Your task to perform on an android device: Check the weather Image 0: 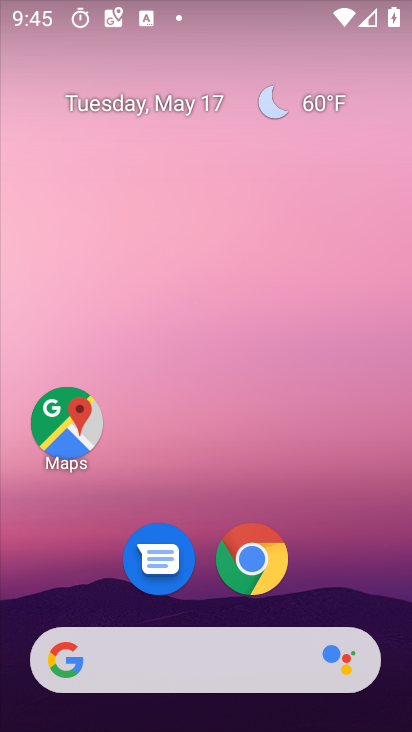
Step 0: drag from (236, 551) to (299, 160)
Your task to perform on an android device: Check the weather Image 1: 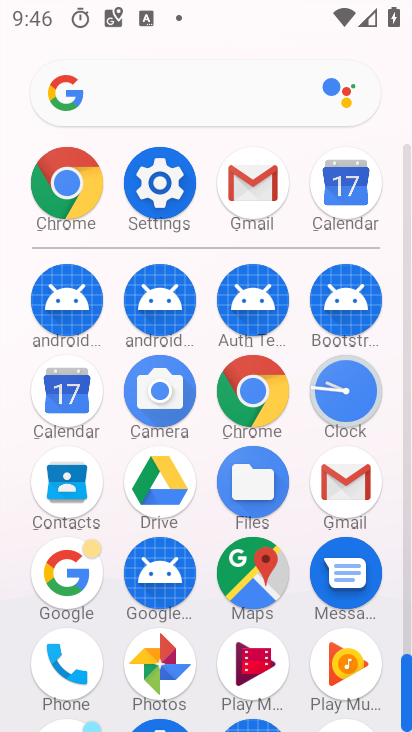
Step 1: click (68, 599)
Your task to perform on an android device: Check the weather Image 2: 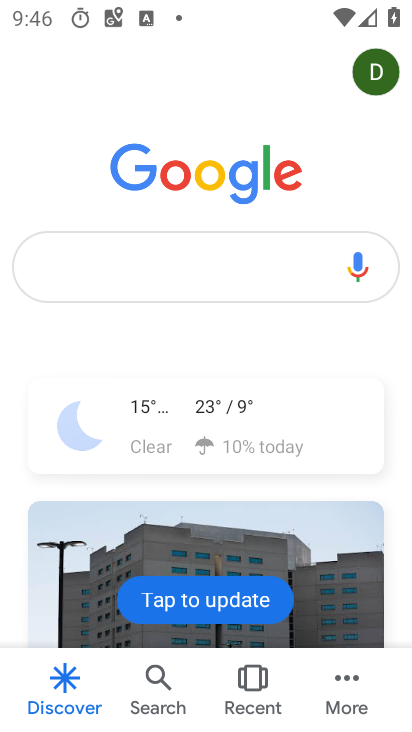
Step 2: click (221, 287)
Your task to perform on an android device: Check the weather Image 3: 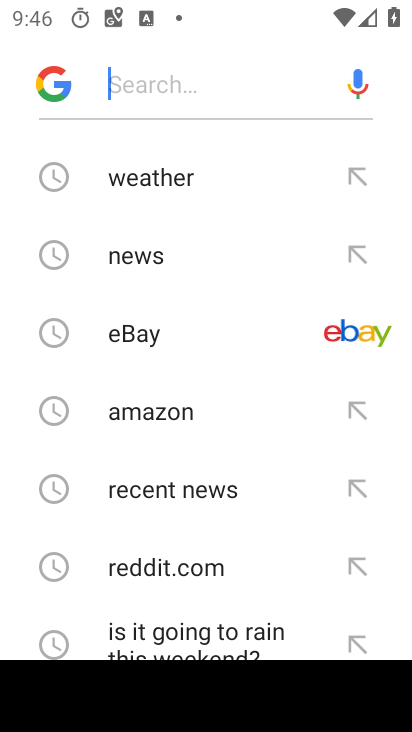
Step 3: click (202, 179)
Your task to perform on an android device: Check the weather Image 4: 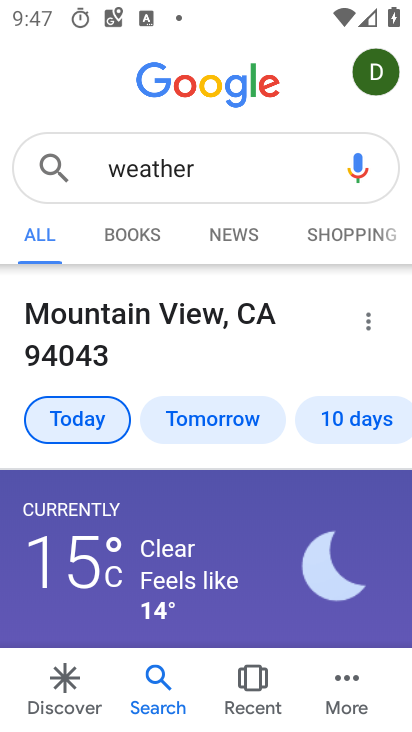
Step 4: task complete